Your task to perform on an android device: turn on sleep mode Image 0: 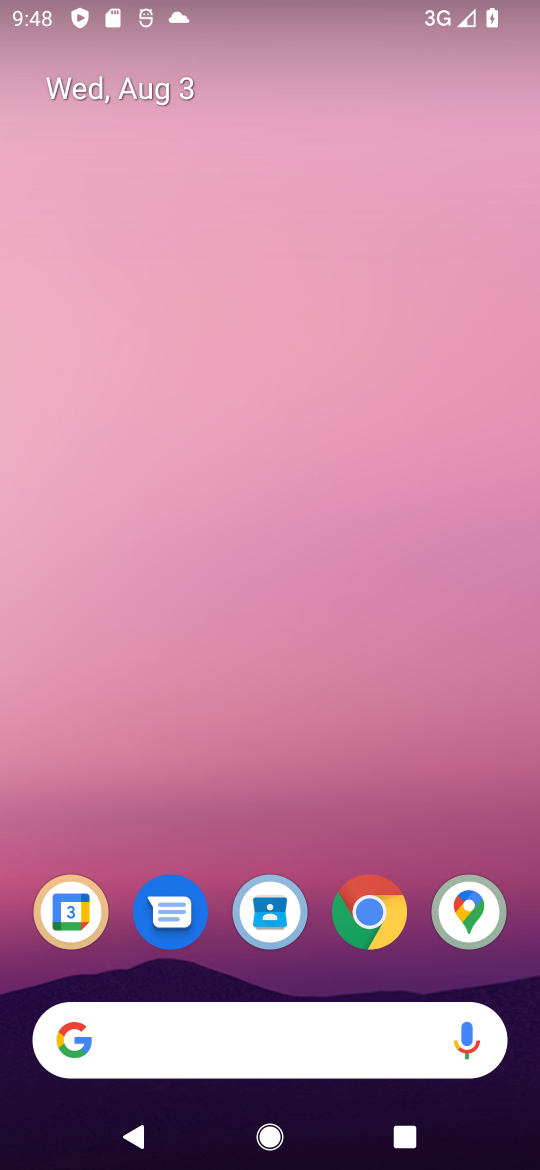
Step 0: drag from (396, 716) to (409, 72)
Your task to perform on an android device: turn on sleep mode Image 1: 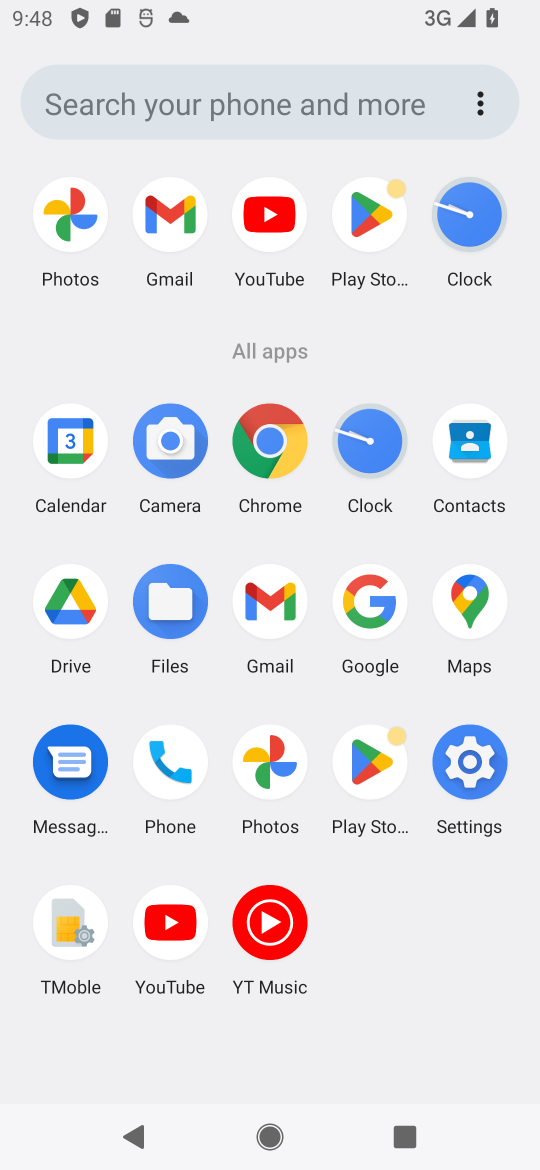
Step 1: click (452, 765)
Your task to perform on an android device: turn on sleep mode Image 2: 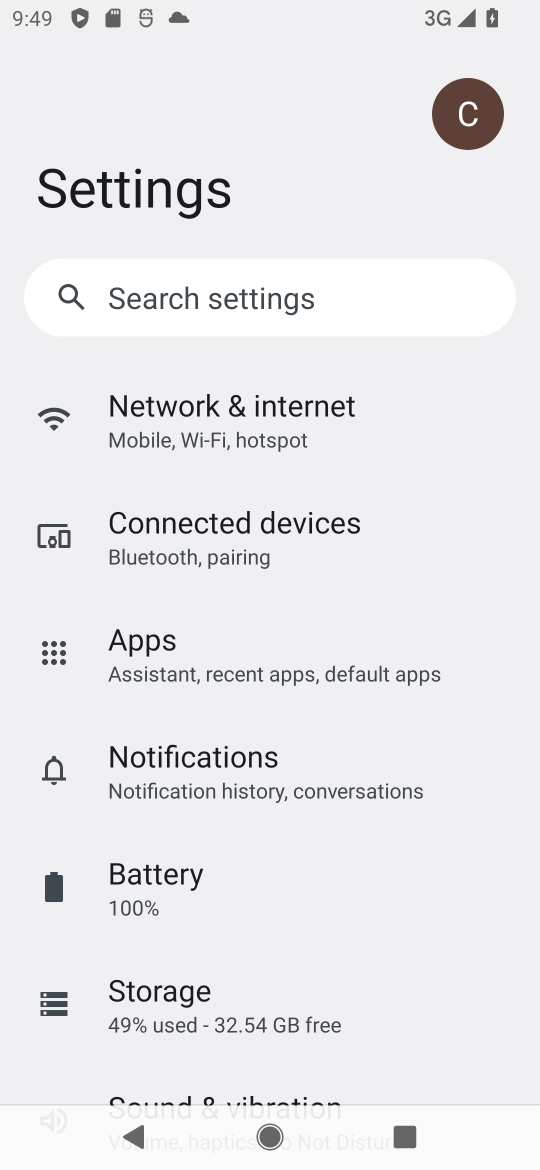
Step 2: drag from (243, 916) to (260, 468)
Your task to perform on an android device: turn on sleep mode Image 3: 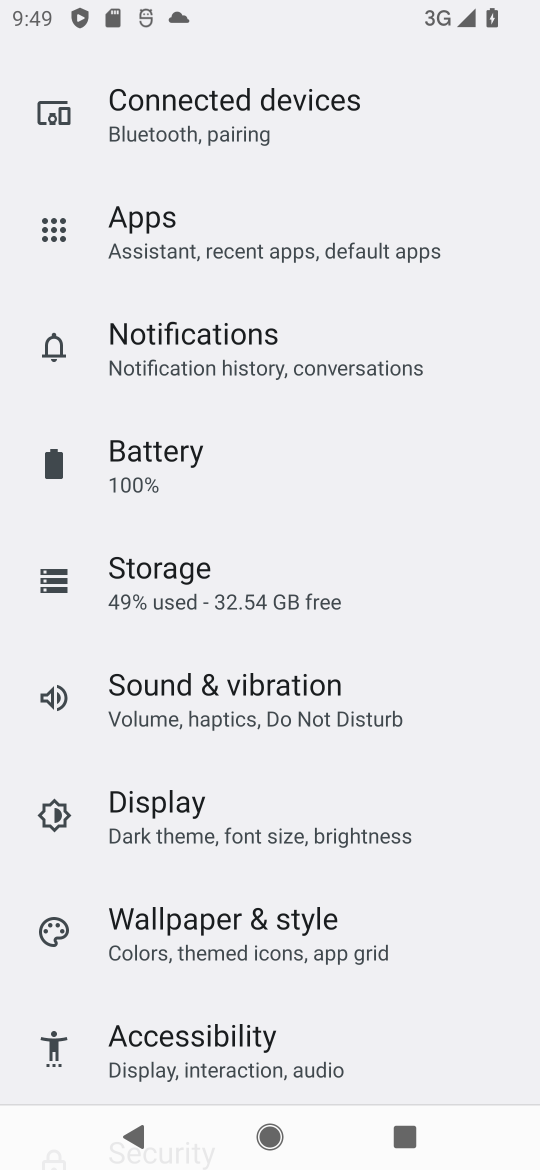
Step 3: drag from (258, 471) to (238, 1027)
Your task to perform on an android device: turn on sleep mode Image 4: 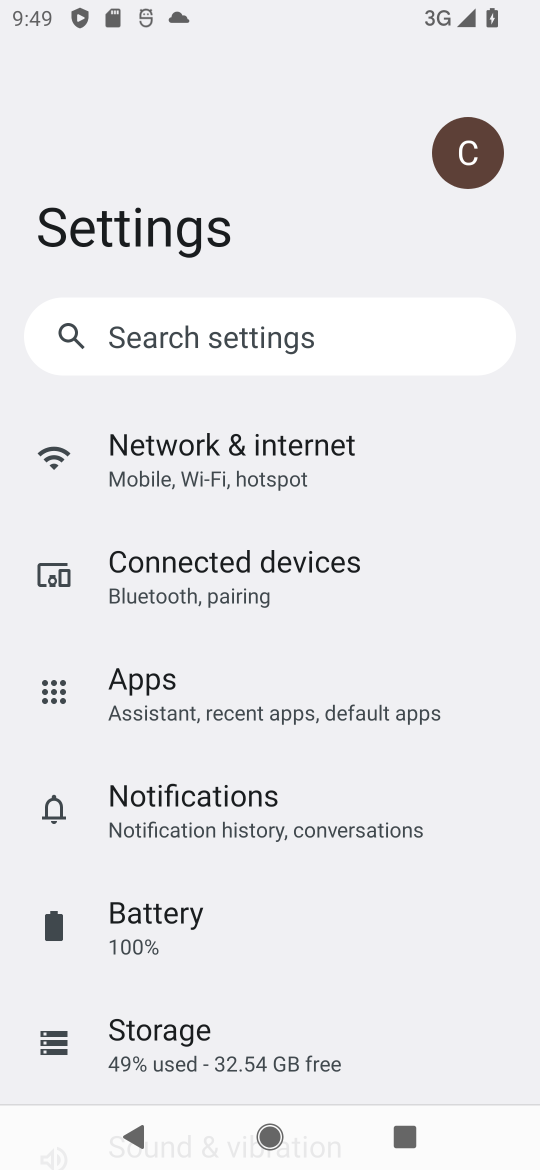
Step 4: drag from (332, 920) to (315, 601)
Your task to perform on an android device: turn on sleep mode Image 5: 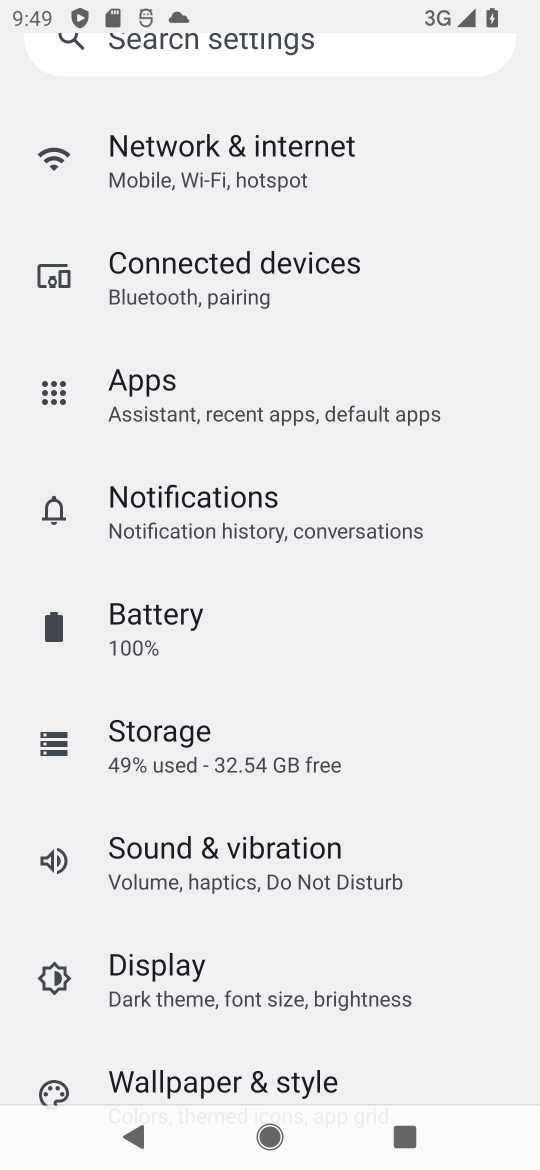
Step 5: click (198, 967)
Your task to perform on an android device: turn on sleep mode Image 6: 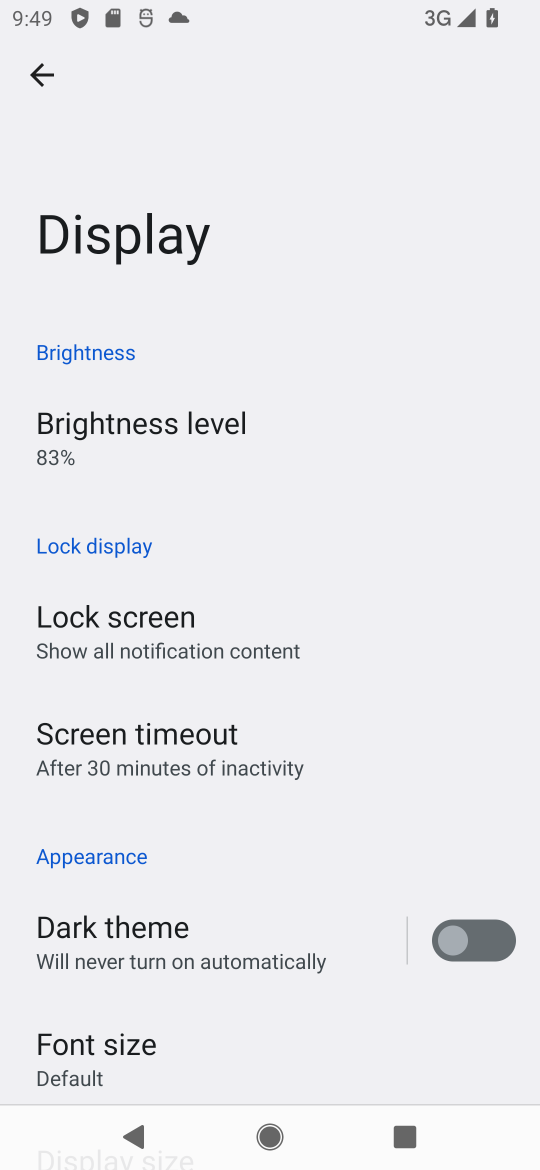
Step 6: click (163, 804)
Your task to perform on an android device: turn on sleep mode Image 7: 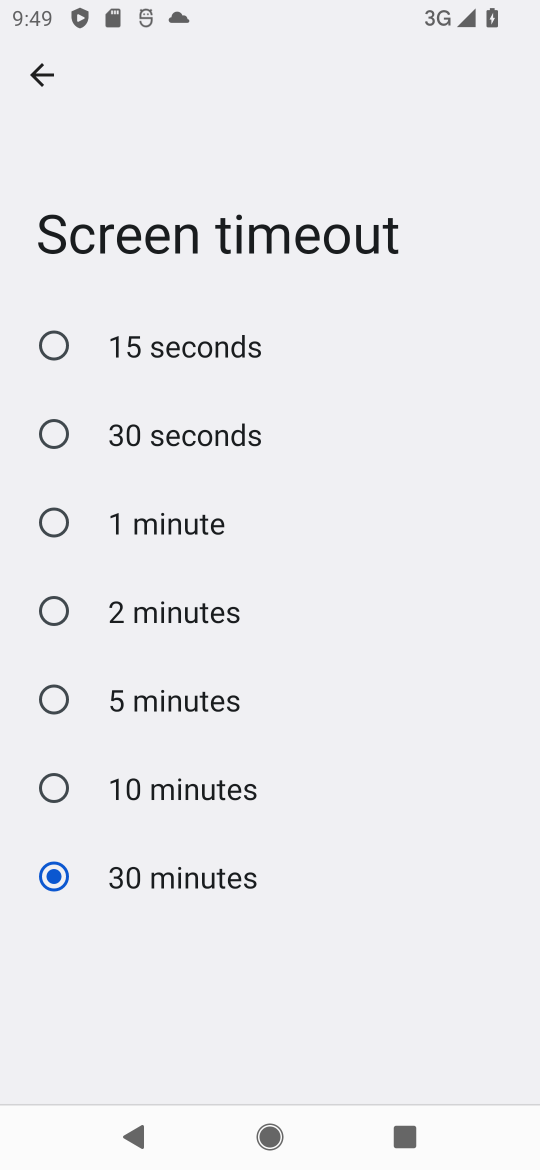
Step 7: task complete